Your task to perform on an android device: Open ESPN.com Image 0: 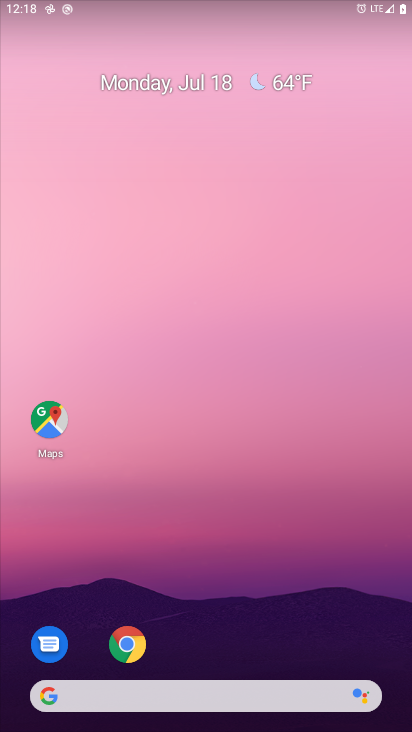
Step 0: press home button
Your task to perform on an android device: Open ESPN.com Image 1: 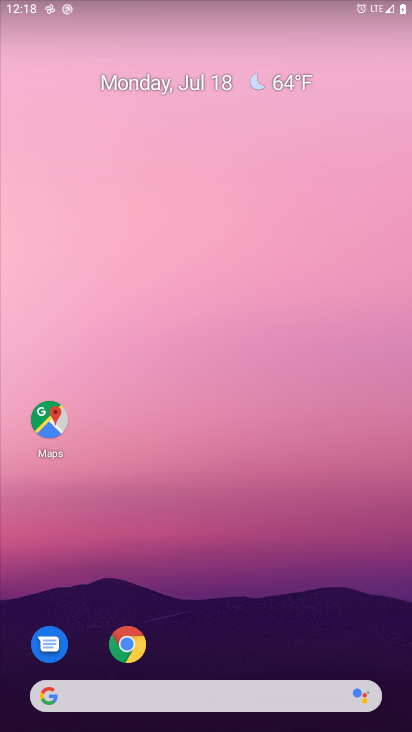
Step 1: click (45, 693)
Your task to perform on an android device: Open ESPN.com Image 2: 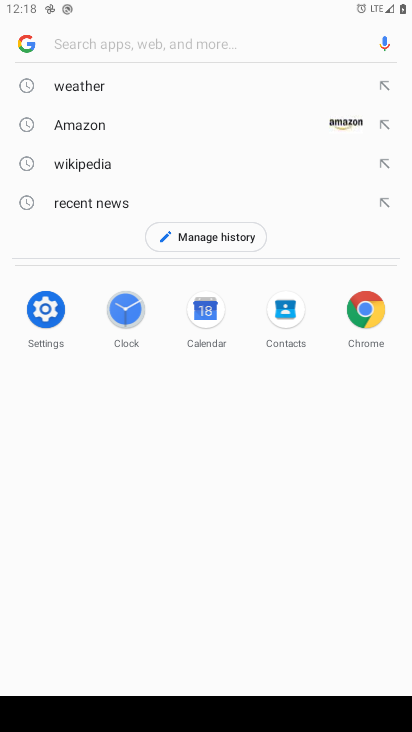
Step 2: type "ESPN.com"
Your task to perform on an android device: Open ESPN.com Image 3: 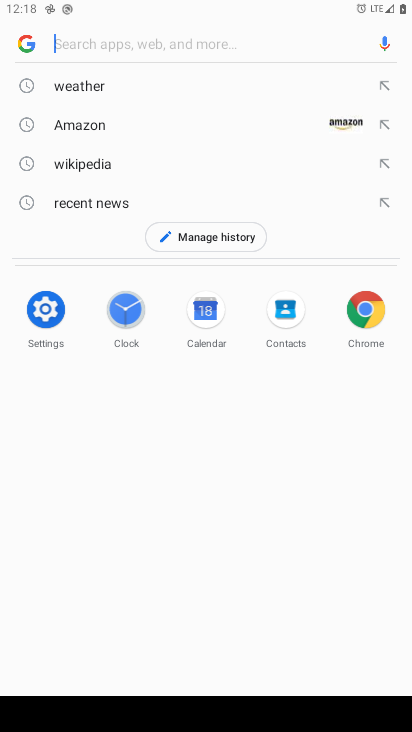
Step 3: click (72, 45)
Your task to perform on an android device: Open ESPN.com Image 4: 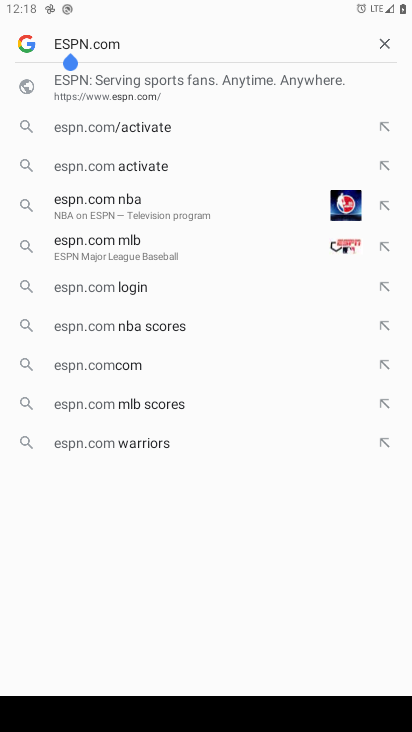
Step 4: press enter
Your task to perform on an android device: Open ESPN.com Image 5: 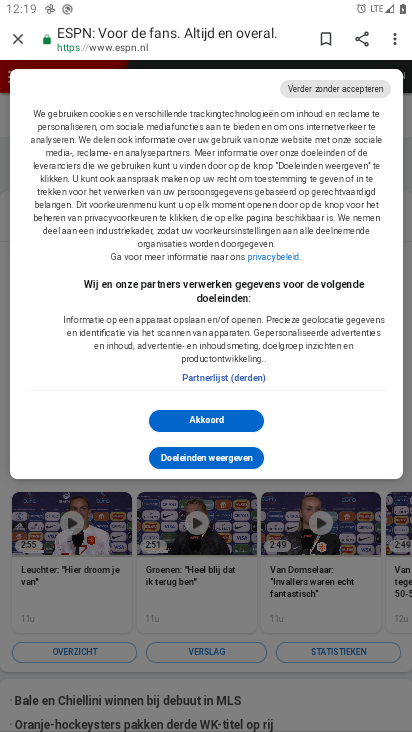
Step 5: task complete